Your task to perform on an android device: create a new album in the google photos Image 0: 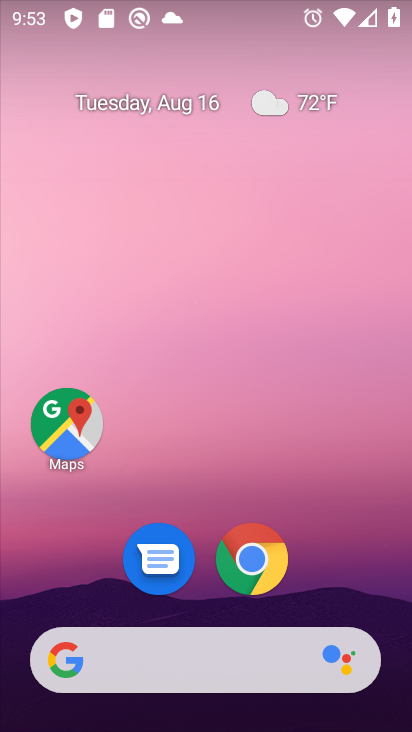
Step 0: drag from (215, 647) to (180, 10)
Your task to perform on an android device: create a new album in the google photos Image 1: 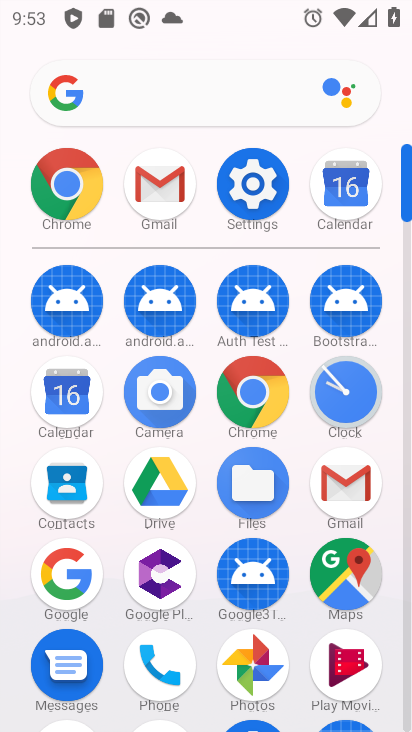
Step 1: click (253, 665)
Your task to perform on an android device: create a new album in the google photos Image 2: 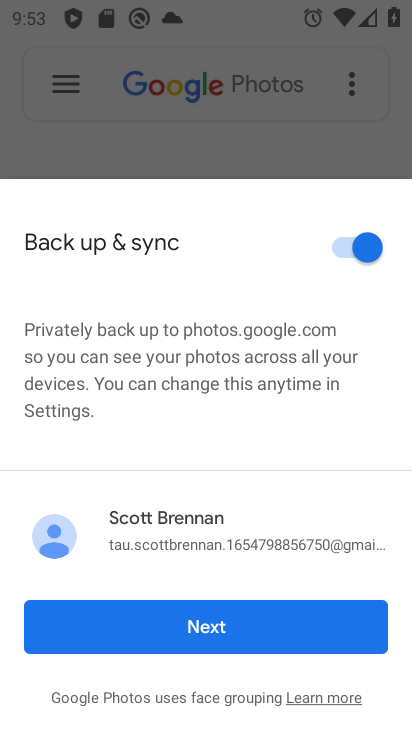
Step 2: click (212, 631)
Your task to perform on an android device: create a new album in the google photos Image 3: 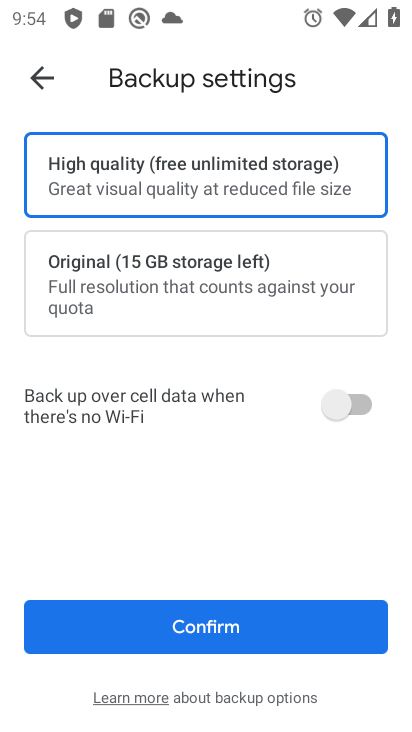
Step 3: click (212, 631)
Your task to perform on an android device: create a new album in the google photos Image 4: 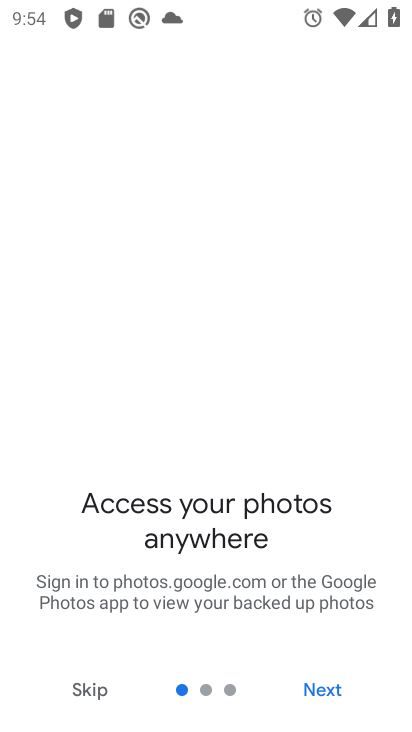
Step 4: click (323, 690)
Your task to perform on an android device: create a new album in the google photos Image 5: 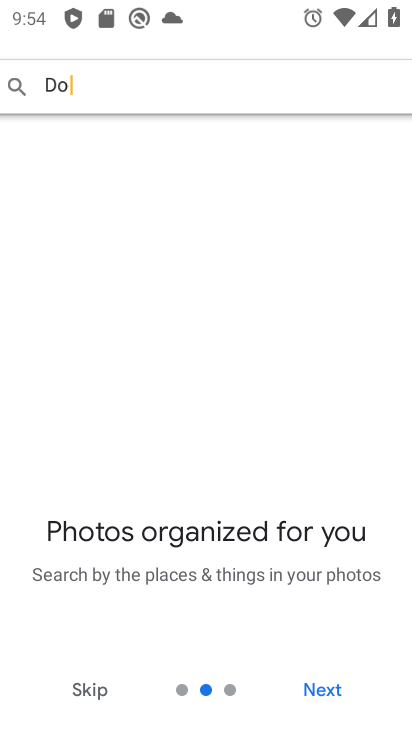
Step 5: click (323, 690)
Your task to perform on an android device: create a new album in the google photos Image 6: 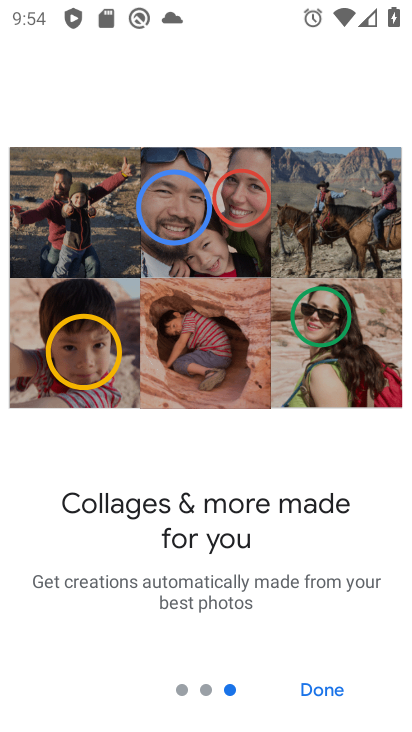
Step 6: click (323, 690)
Your task to perform on an android device: create a new album in the google photos Image 7: 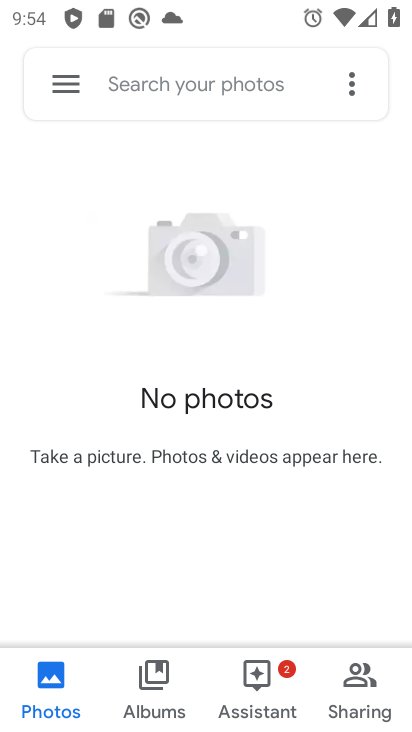
Step 7: click (152, 674)
Your task to perform on an android device: create a new album in the google photos Image 8: 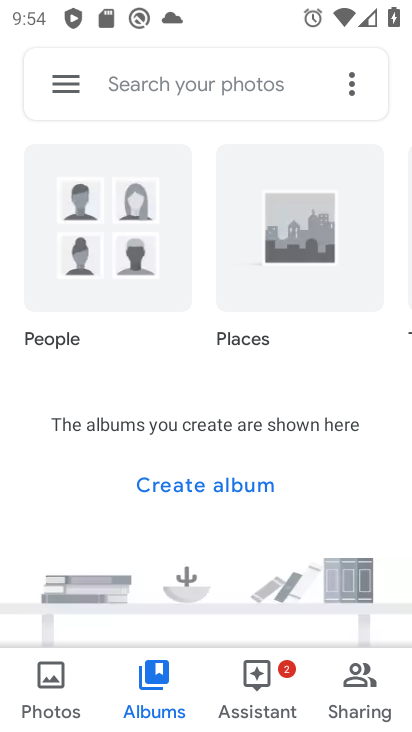
Step 8: click (235, 489)
Your task to perform on an android device: create a new album in the google photos Image 9: 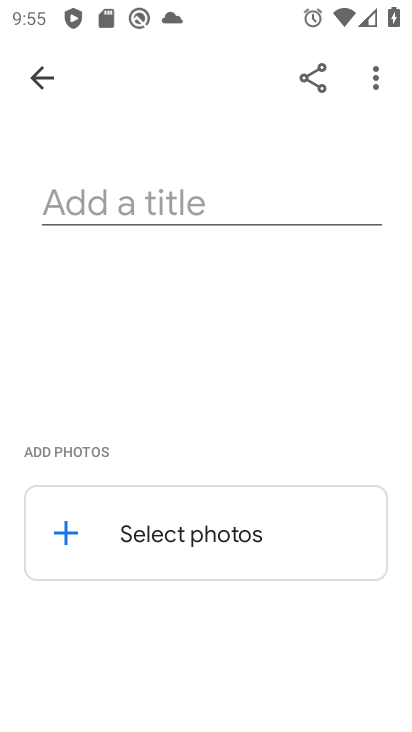
Step 9: click (278, 210)
Your task to perform on an android device: create a new album in the google photos Image 10: 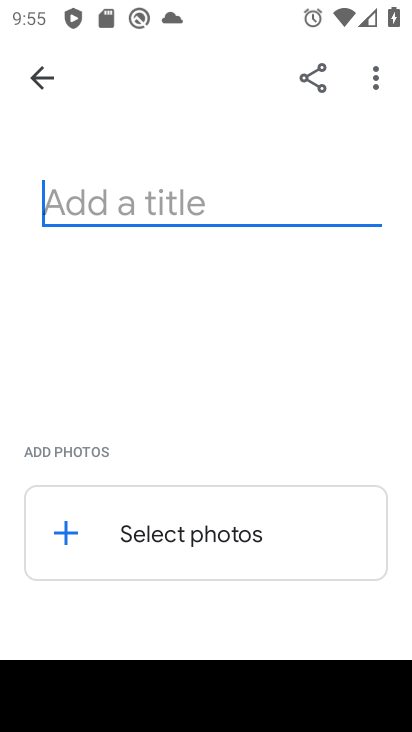
Step 10: task complete